Your task to perform on an android device: Go to display settings Image 0: 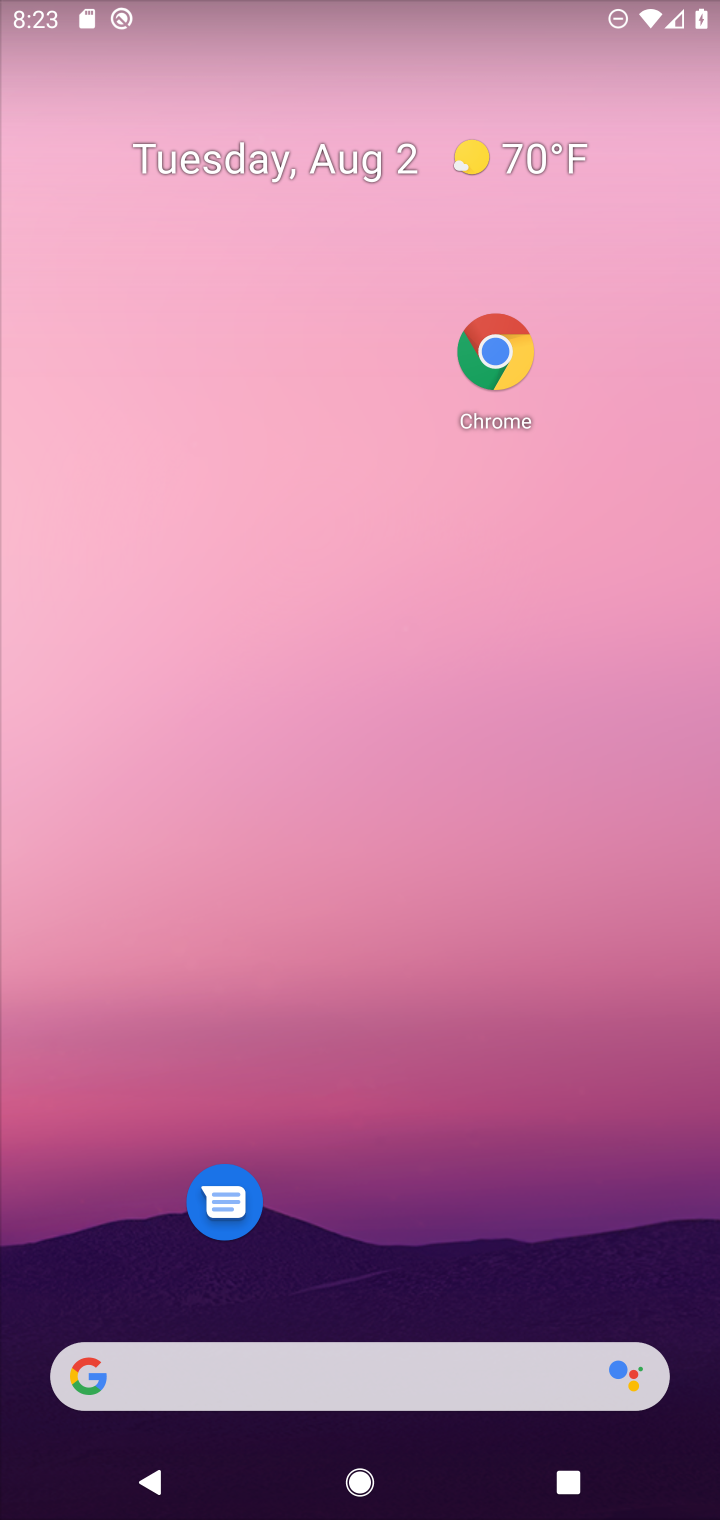
Step 0: drag from (339, 1288) to (359, 41)
Your task to perform on an android device: Go to display settings Image 1: 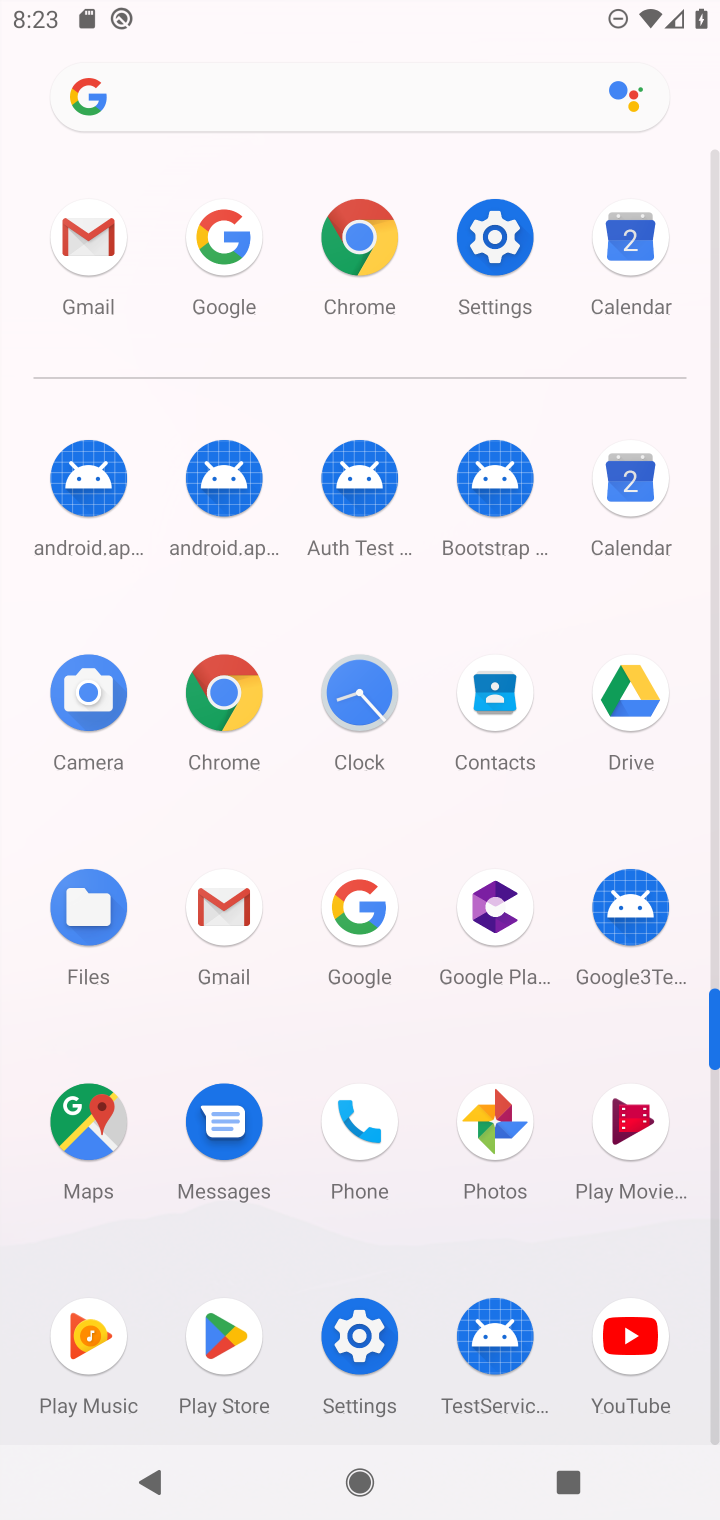
Step 1: click (493, 253)
Your task to perform on an android device: Go to display settings Image 2: 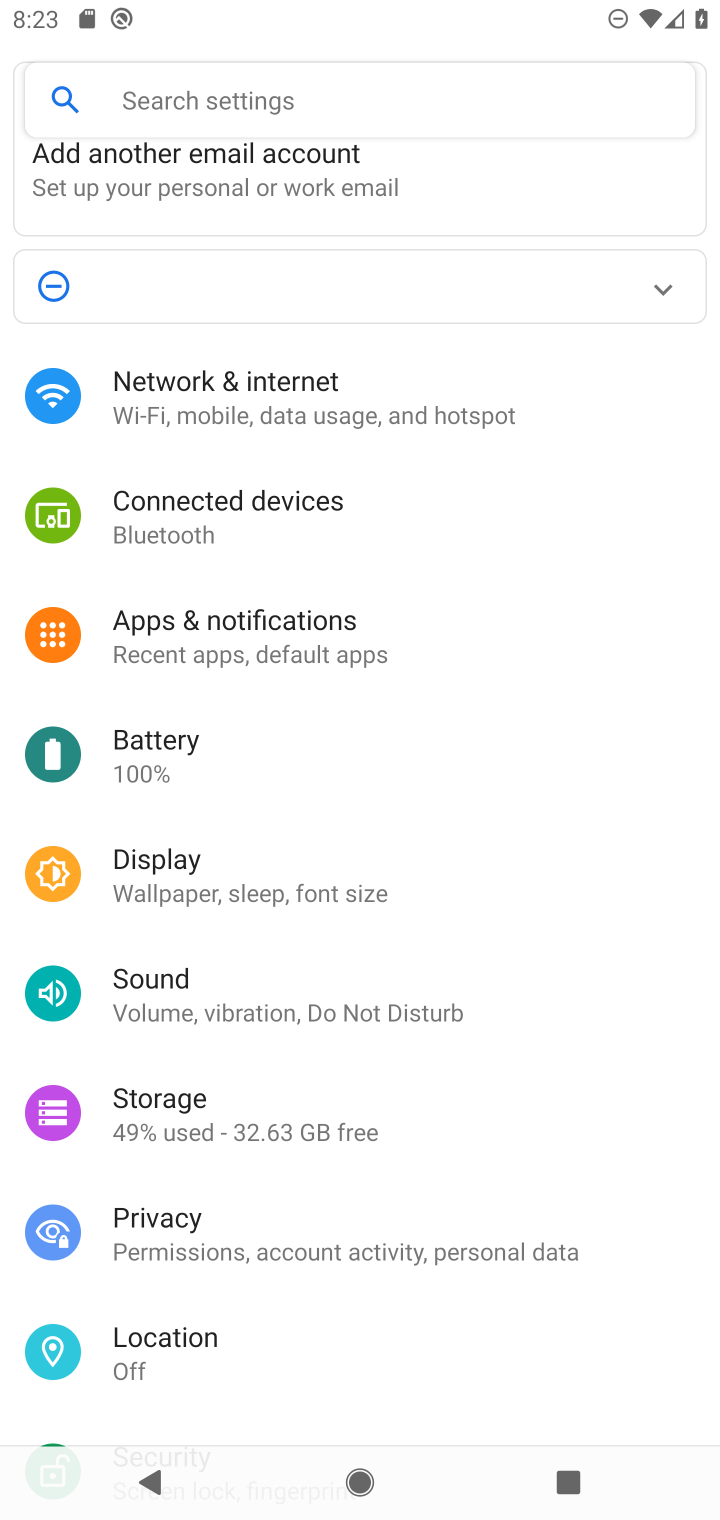
Step 2: click (159, 866)
Your task to perform on an android device: Go to display settings Image 3: 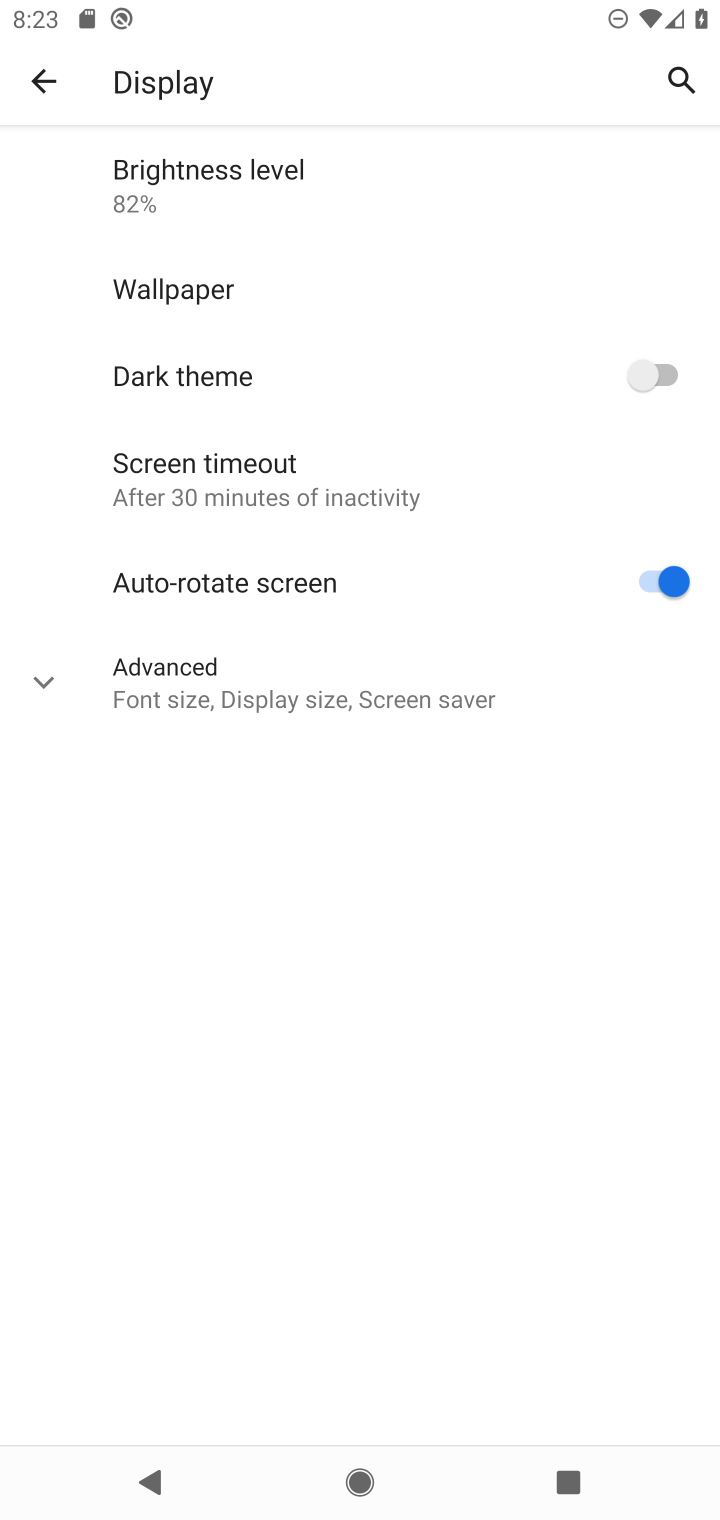
Step 3: task complete